Your task to perform on an android device: open a bookmark in the chrome app Image 0: 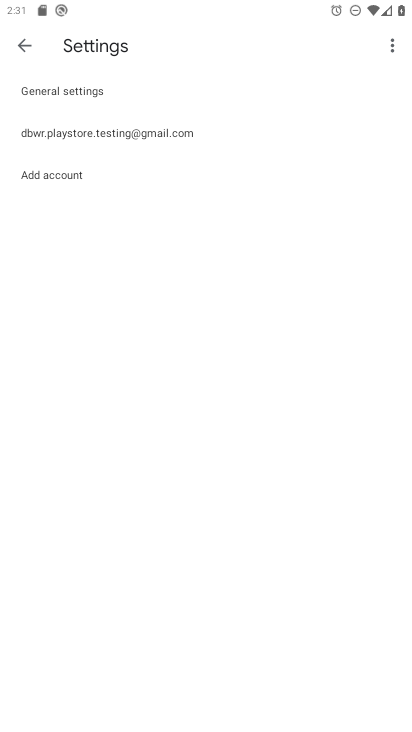
Step 0: press back button
Your task to perform on an android device: open a bookmark in the chrome app Image 1: 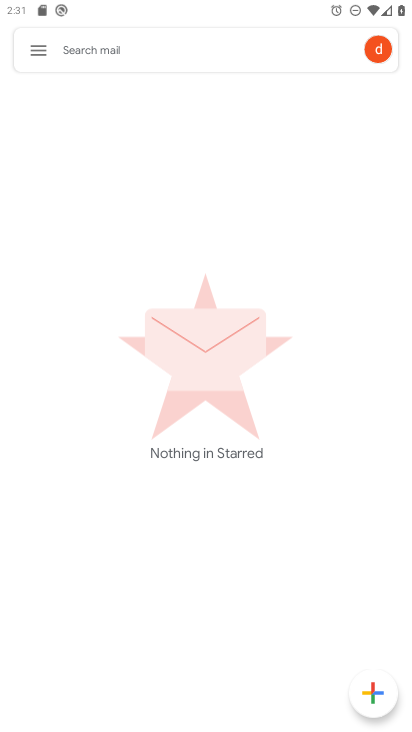
Step 1: press home button
Your task to perform on an android device: open a bookmark in the chrome app Image 2: 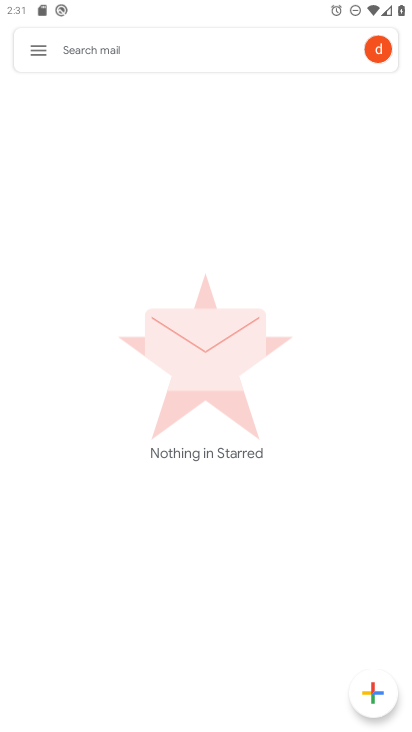
Step 2: press home button
Your task to perform on an android device: open a bookmark in the chrome app Image 3: 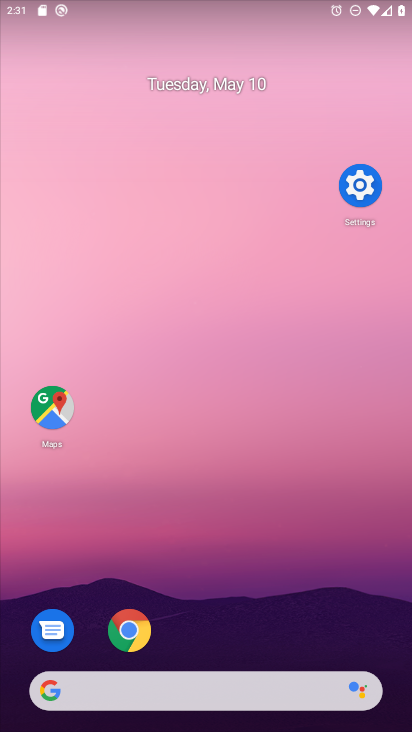
Step 3: drag from (237, 613) to (139, 63)
Your task to perform on an android device: open a bookmark in the chrome app Image 4: 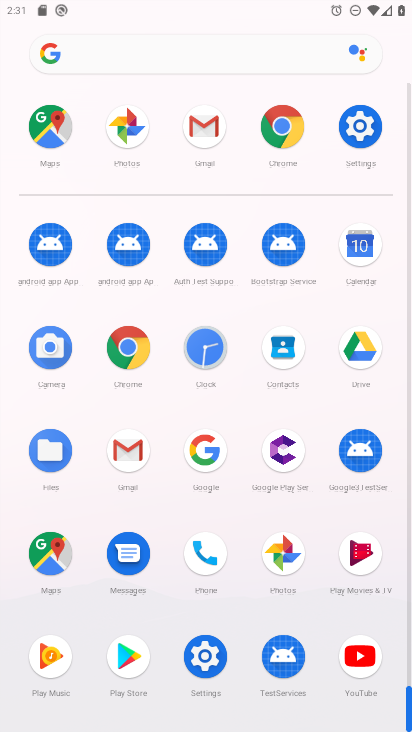
Step 4: click (276, 139)
Your task to perform on an android device: open a bookmark in the chrome app Image 5: 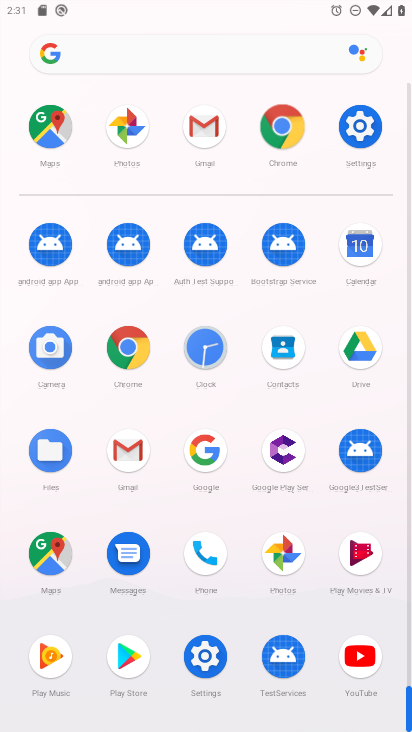
Step 5: click (276, 136)
Your task to perform on an android device: open a bookmark in the chrome app Image 6: 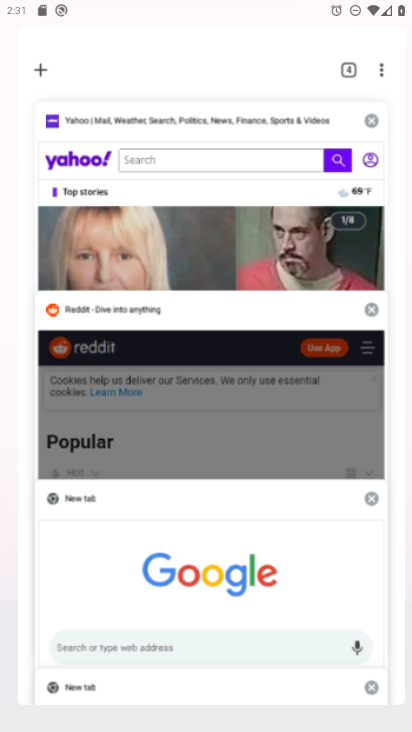
Step 6: click (276, 136)
Your task to perform on an android device: open a bookmark in the chrome app Image 7: 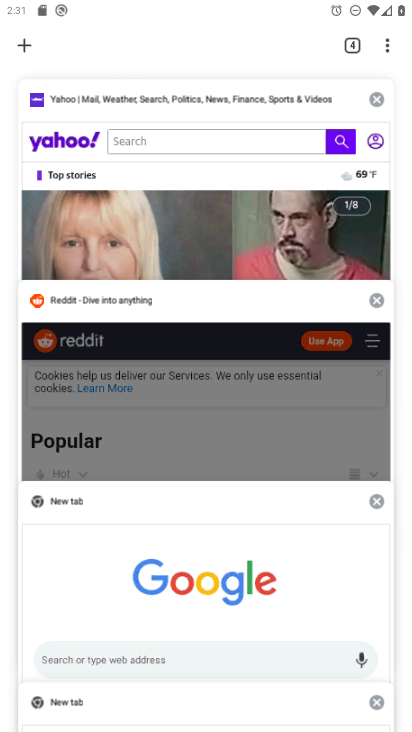
Step 7: drag from (382, 44) to (225, 179)
Your task to perform on an android device: open a bookmark in the chrome app Image 8: 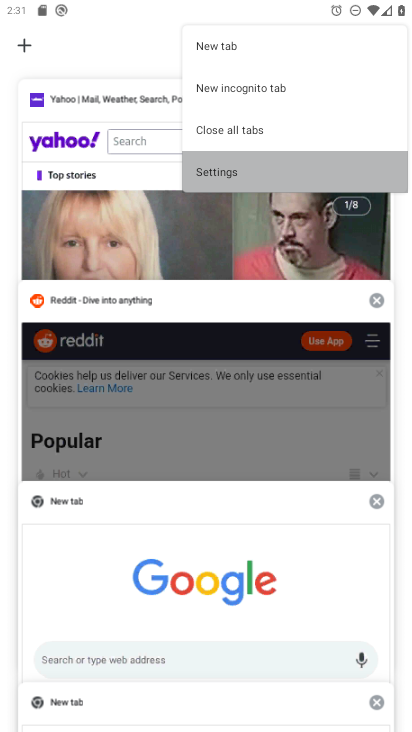
Step 8: click (225, 179)
Your task to perform on an android device: open a bookmark in the chrome app Image 9: 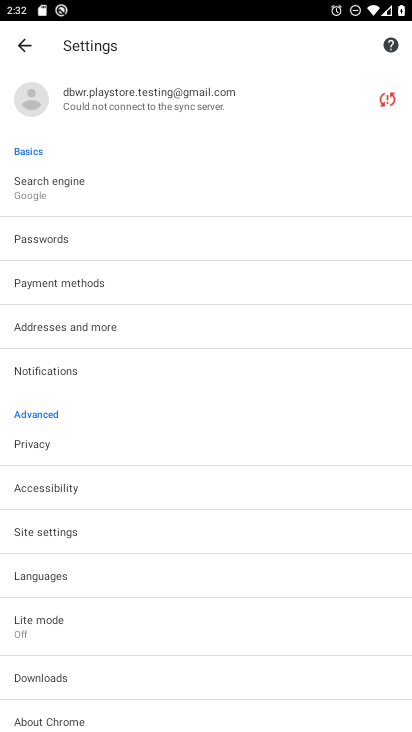
Step 9: click (20, 47)
Your task to perform on an android device: open a bookmark in the chrome app Image 10: 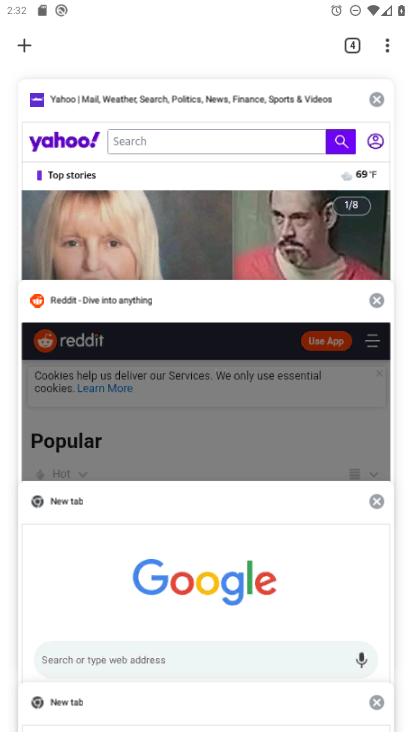
Step 10: drag from (388, 34) to (233, 174)
Your task to perform on an android device: open a bookmark in the chrome app Image 11: 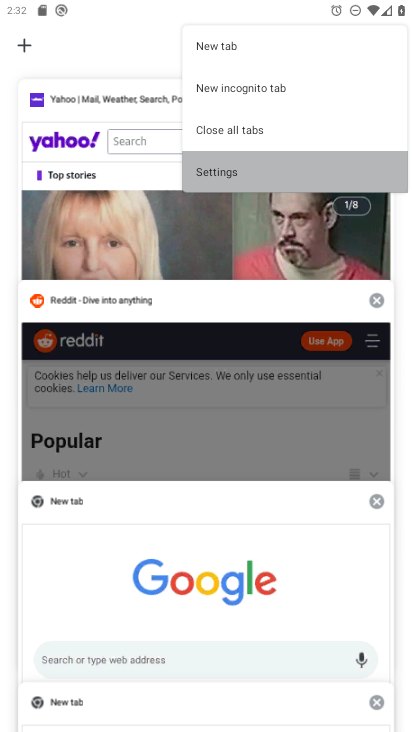
Step 11: click (233, 174)
Your task to perform on an android device: open a bookmark in the chrome app Image 12: 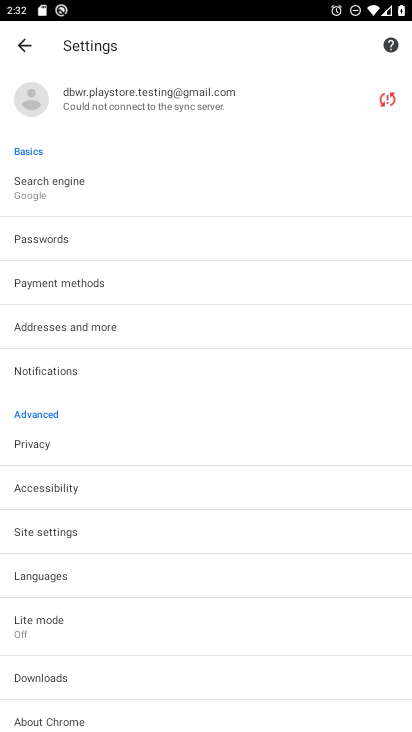
Step 12: drag from (105, 521) to (74, 241)
Your task to perform on an android device: open a bookmark in the chrome app Image 13: 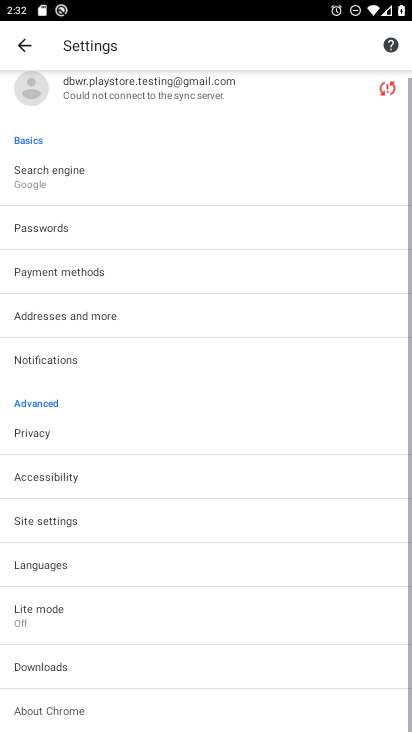
Step 13: click (131, 200)
Your task to perform on an android device: open a bookmark in the chrome app Image 14: 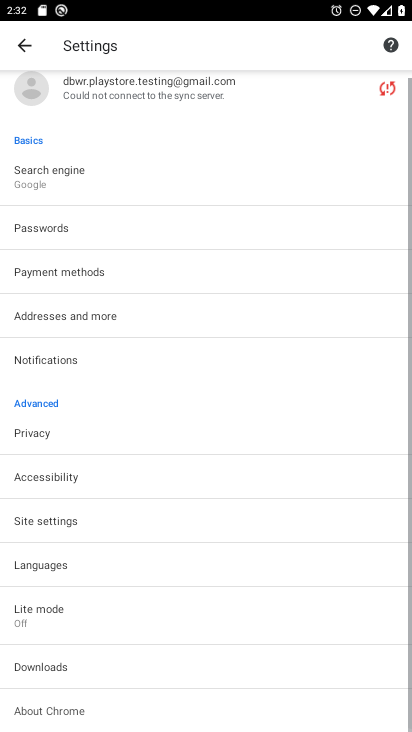
Step 14: task complete